Your task to perform on an android device: When is my next appointment? Image 0: 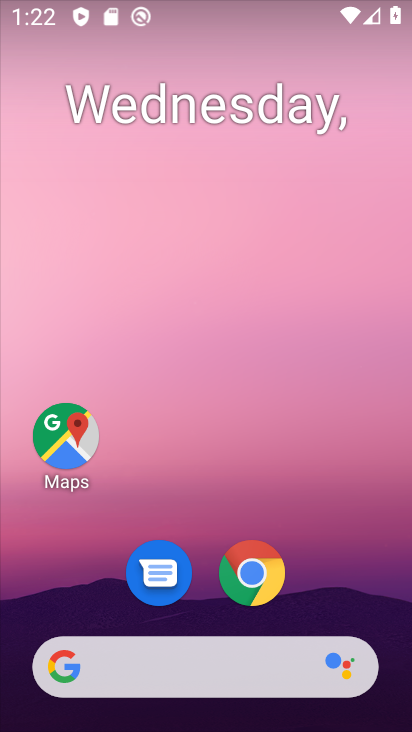
Step 0: drag from (202, 551) to (216, 167)
Your task to perform on an android device: When is my next appointment? Image 1: 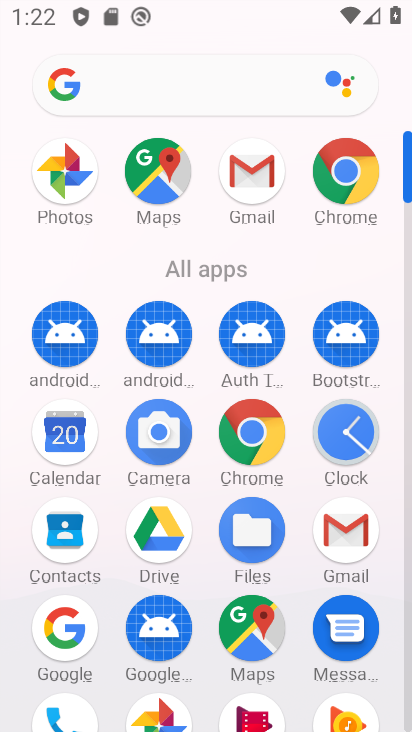
Step 1: click (61, 440)
Your task to perform on an android device: When is my next appointment? Image 2: 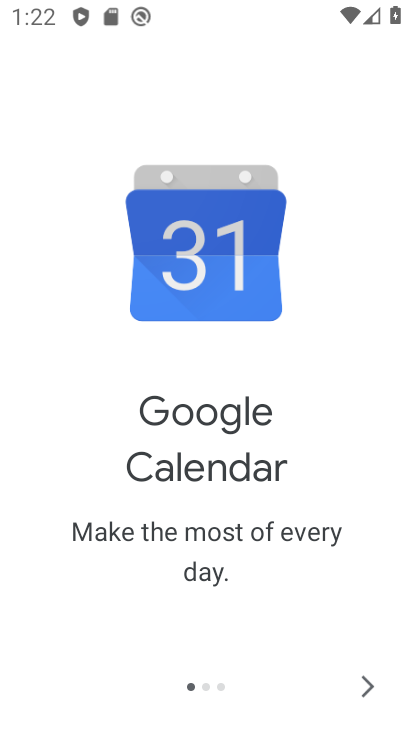
Step 2: click (355, 685)
Your task to perform on an android device: When is my next appointment? Image 3: 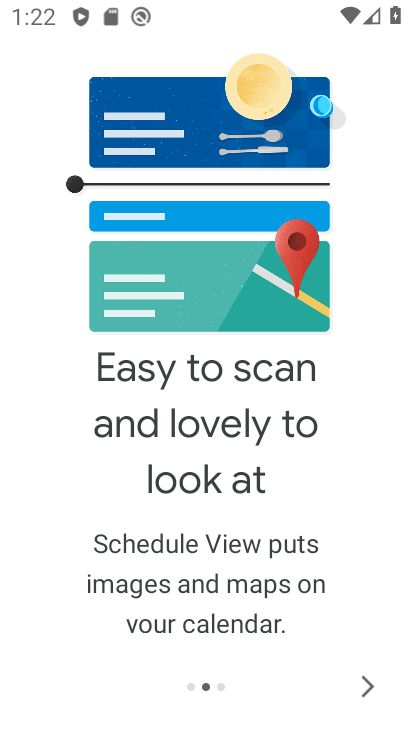
Step 3: click (355, 685)
Your task to perform on an android device: When is my next appointment? Image 4: 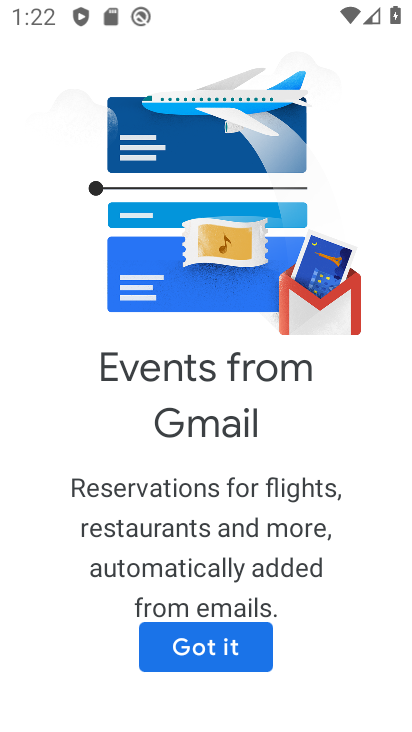
Step 4: click (201, 649)
Your task to perform on an android device: When is my next appointment? Image 5: 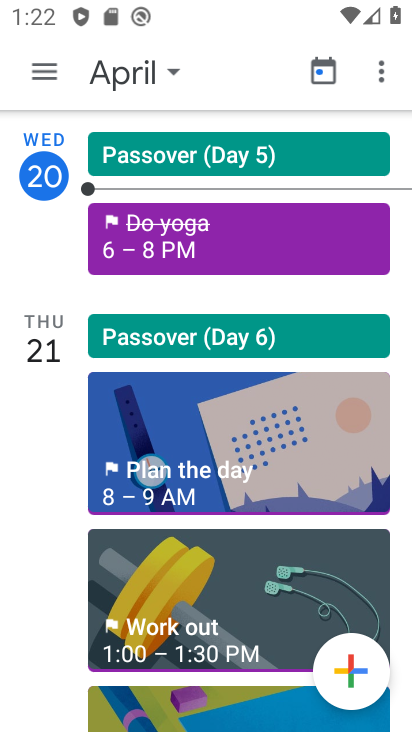
Step 5: click (161, 67)
Your task to perform on an android device: When is my next appointment? Image 6: 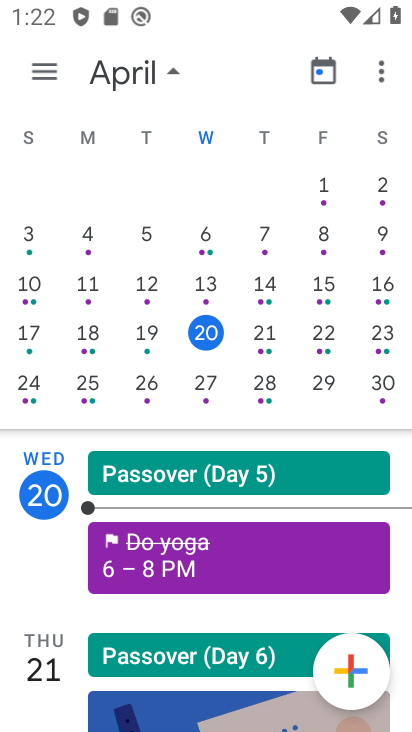
Step 6: click (143, 389)
Your task to perform on an android device: When is my next appointment? Image 7: 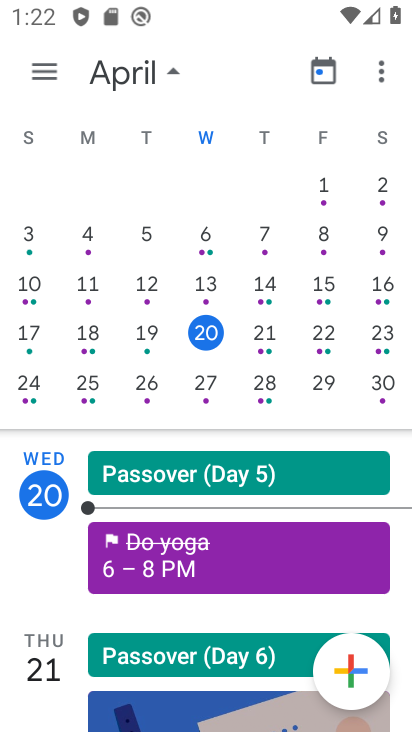
Step 7: click (145, 377)
Your task to perform on an android device: When is my next appointment? Image 8: 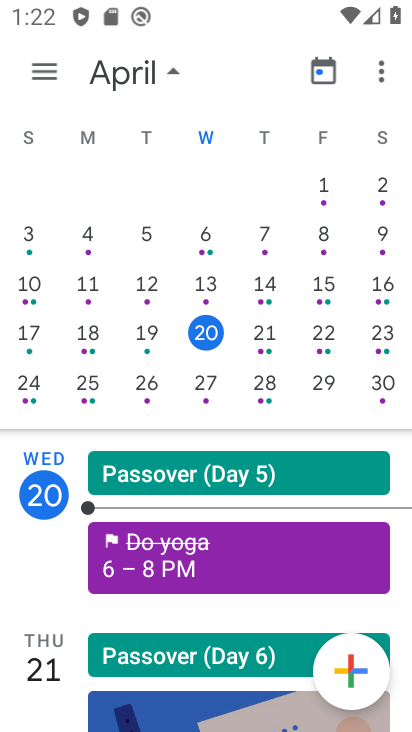
Step 8: click (145, 377)
Your task to perform on an android device: When is my next appointment? Image 9: 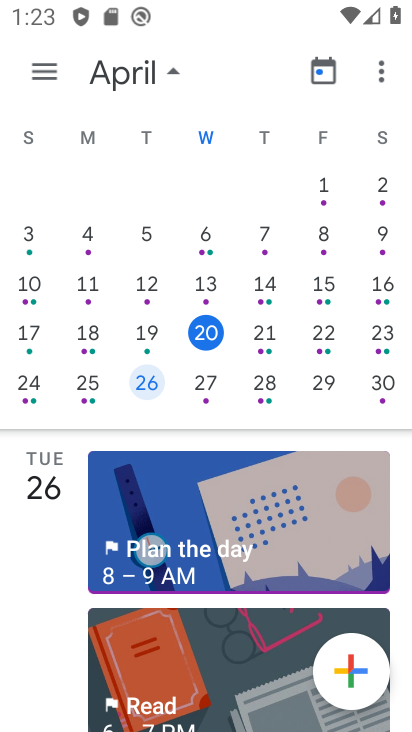
Step 9: task complete